Your task to perform on an android device: turn off notifications settings in the gmail app Image 0: 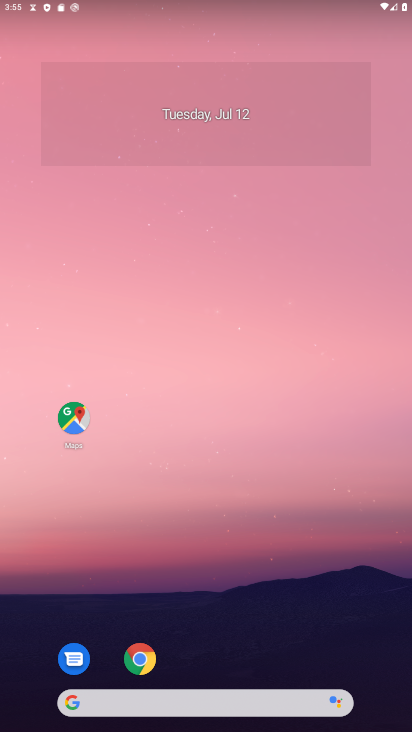
Step 0: press home button
Your task to perform on an android device: turn off notifications settings in the gmail app Image 1: 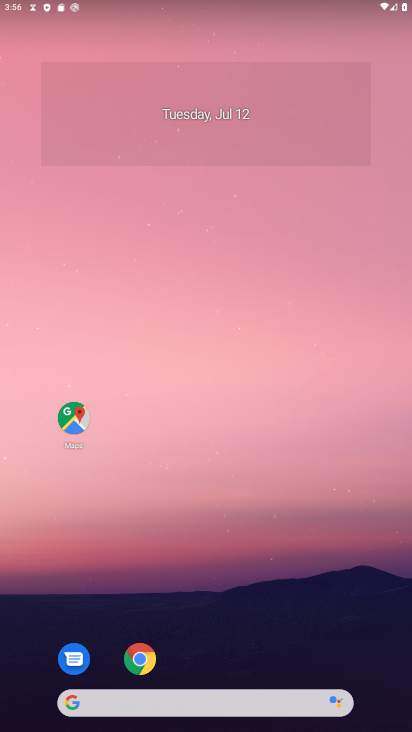
Step 1: drag from (244, 638) to (212, 45)
Your task to perform on an android device: turn off notifications settings in the gmail app Image 2: 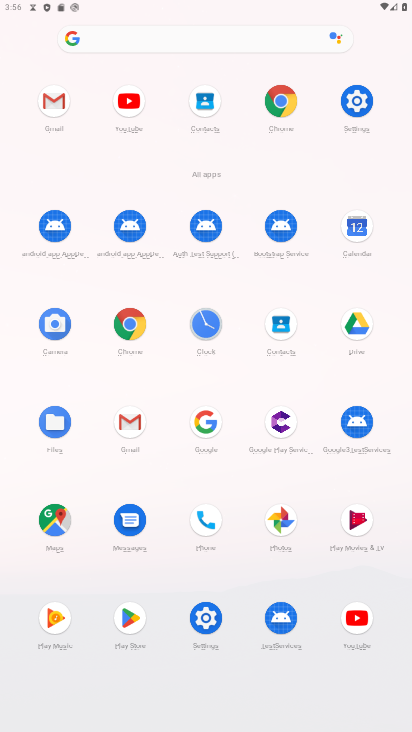
Step 2: click (43, 98)
Your task to perform on an android device: turn off notifications settings in the gmail app Image 3: 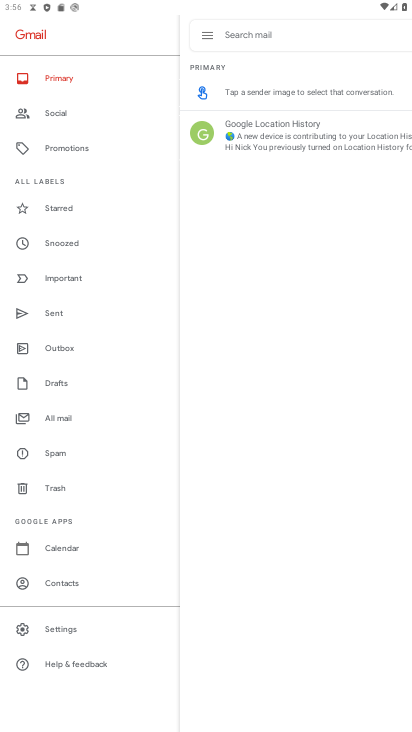
Step 3: click (65, 630)
Your task to perform on an android device: turn off notifications settings in the gmail app Image 4: 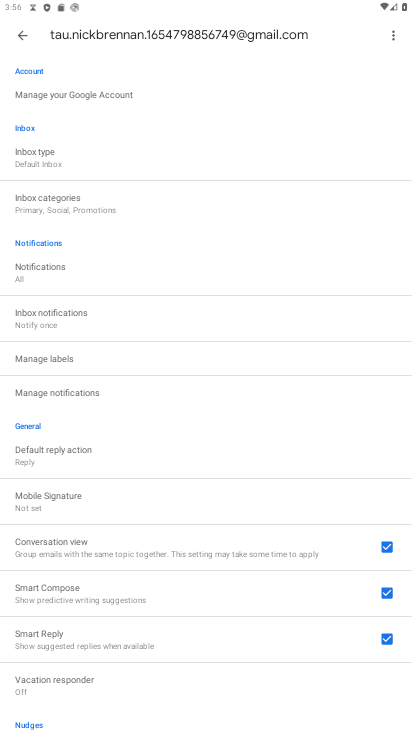
Step 4: click (71, 389)
Your task to perform on an android device: turn off notifications settings in the gmail app Image 5: 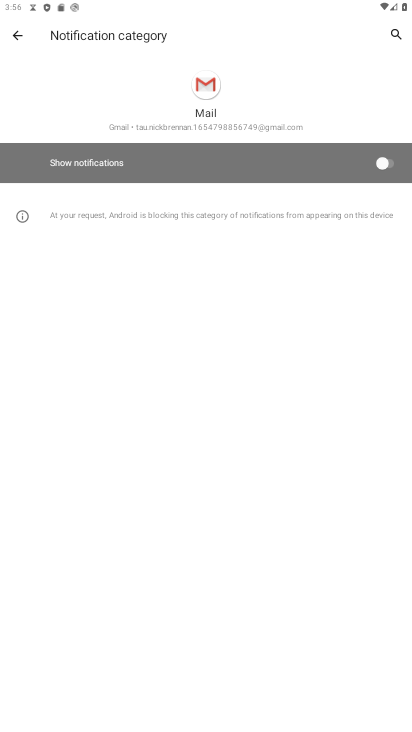
Step 5: task complete